Your task to perform on an android device: What's the weather going to be this weekend? Image 0: 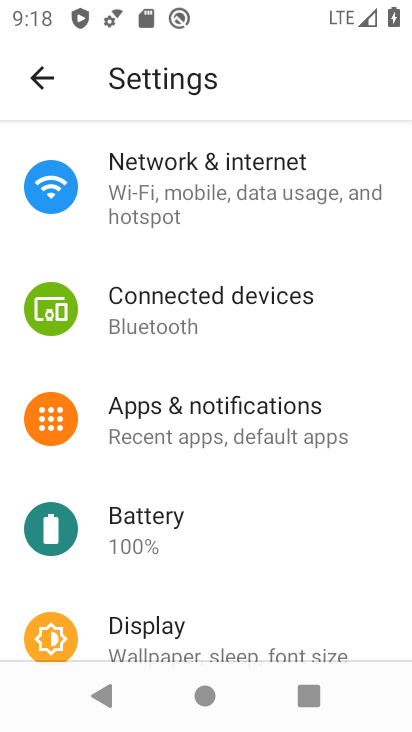
Step 0: press home button
Your task to perform on an android device: What's the weather going to be this weekend? Image 1: 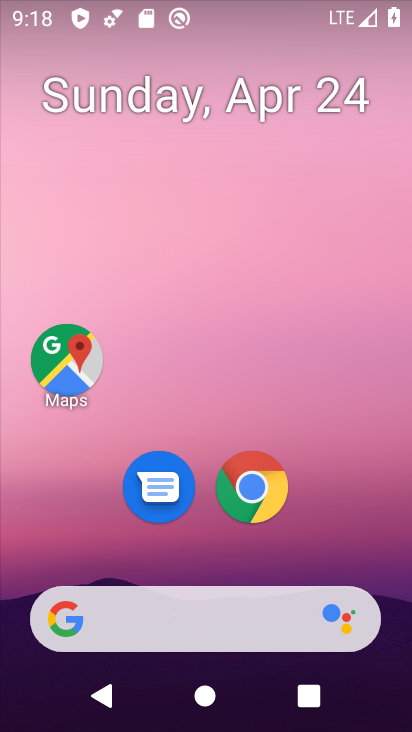
Step 1: drag from (370, 391) to (369, 94)
Your task to perform on an android device: What's the weather going to be this weekend? Image 2: 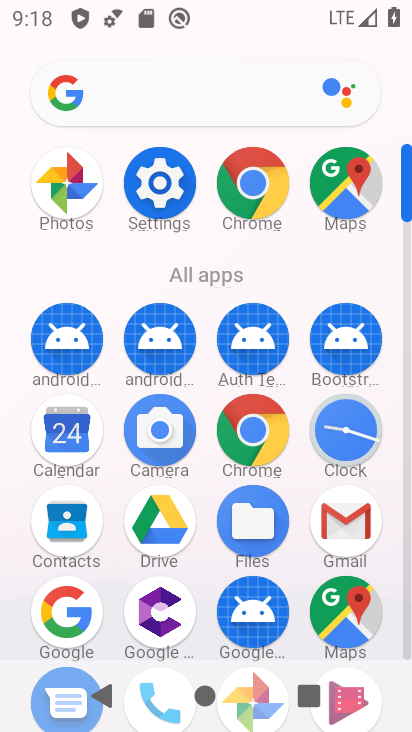
Step 2: click (223, 191)
Your task to perform on an android device: What's the weather going to be this weekend? Image 3: 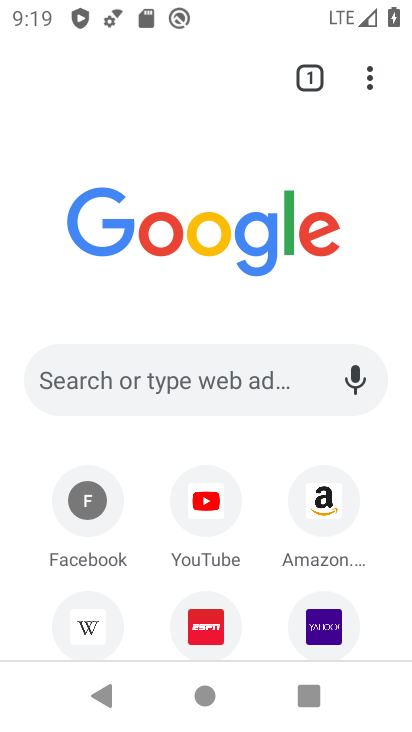
Step 3: click (204, 383)
Your task to perform on an android device: What's the weather going to be this weekend? Image 4: 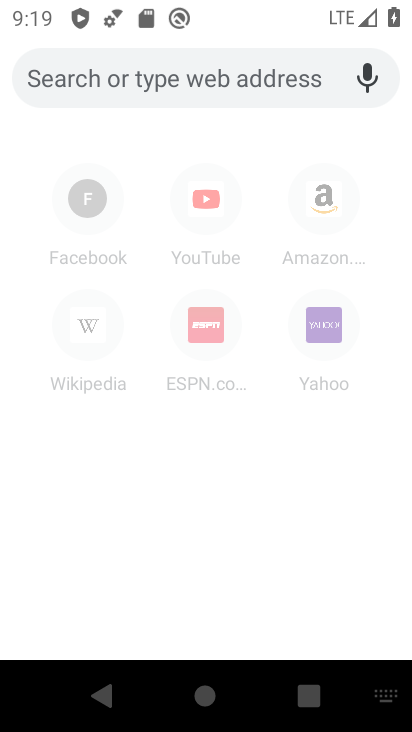
Step 4: type "What's the weather going to be this weekend?"
Your task to perform on an android device: What's the weather going to be this weekend? Image 5: 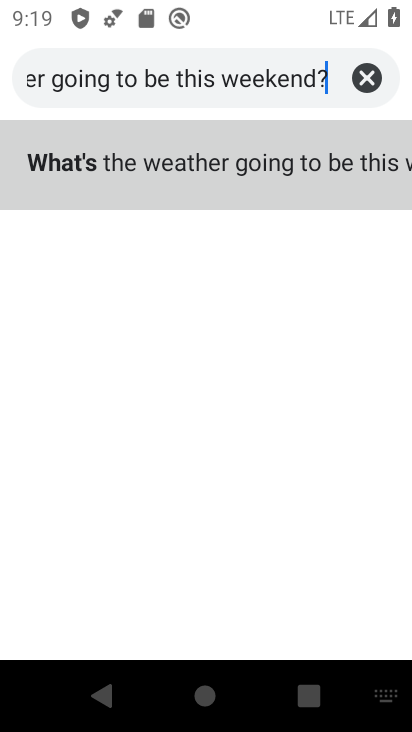
Step 5: click (175, 154)
Your task to perform on an android device: What's the weather going to be this weekend? Image 6: 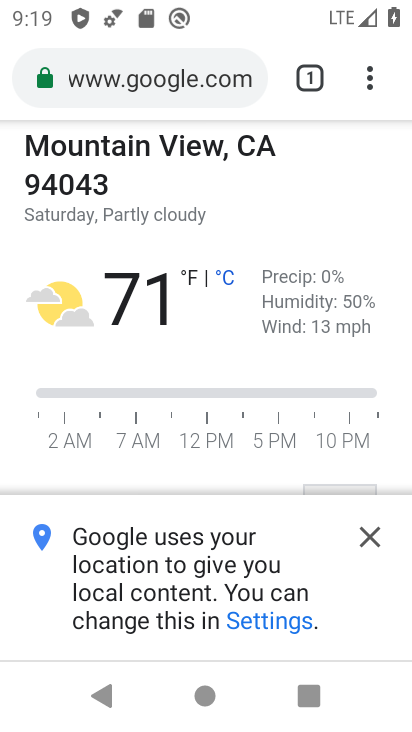
Step 6: task complete